Your task to perform on an android device: read, delete, or share a saved page in the chrome app Image 0: 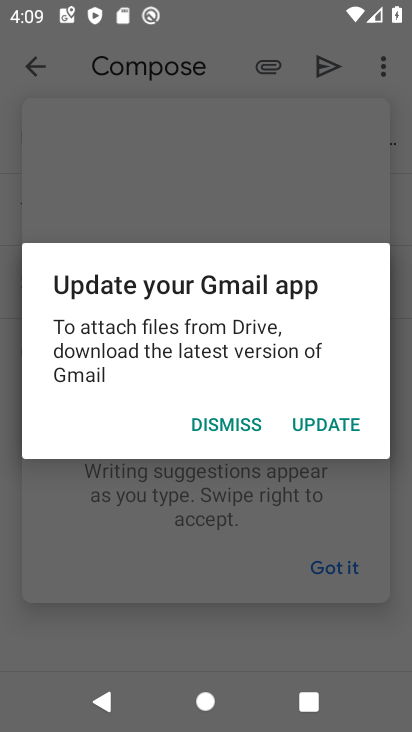
Step 0: press home button
Your task to perform on an android device: read, delete, or share a saved page in the chrome app Image 1: 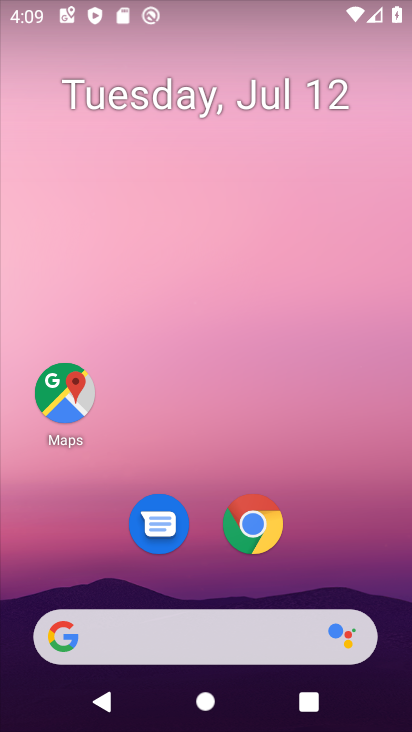
Step 1: drag from (326, 574) to (322, 34)
Your task to perform on an android device: read, delete, or share a saved page in the chrome app Image 2: 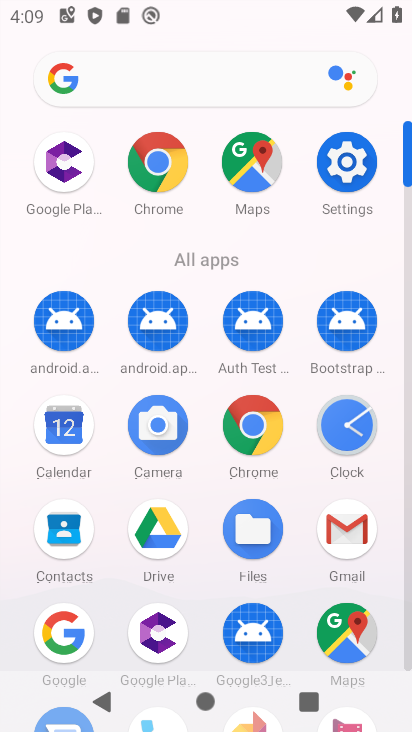
Step 2: click (168, 176)
Your task to perform on an android device: read, delete, or share a saved page in the chrome app Image 3: 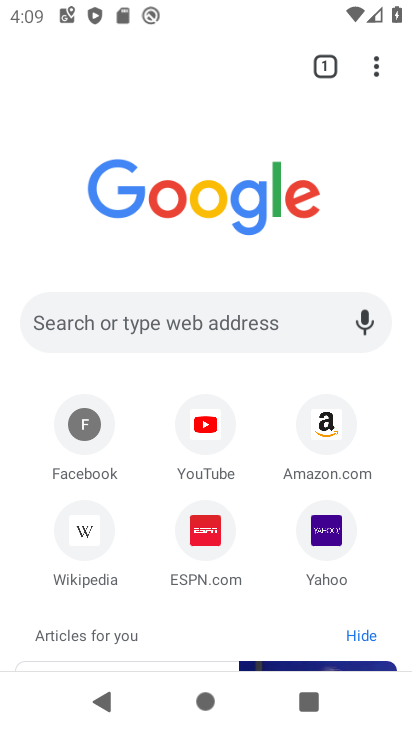
Step 3: click (377, 70)
Your task to perform on an android device: read, delete, or share a saved page in the chrome app Image 4: 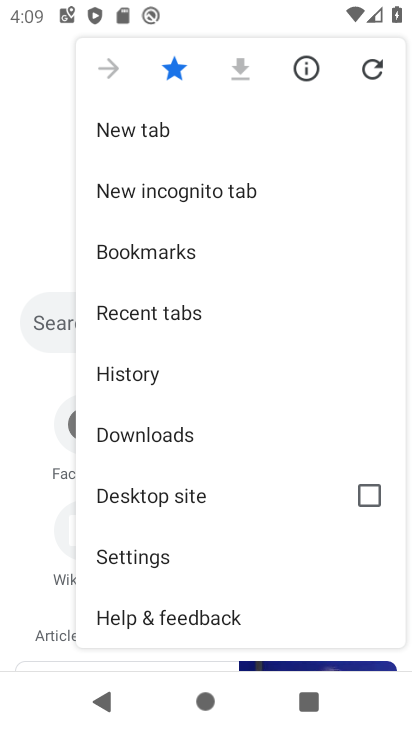
Step 4: click (164, 426)
Your task to perform on an android device: read, delete, or share a saved page in the chrome app Image 5: 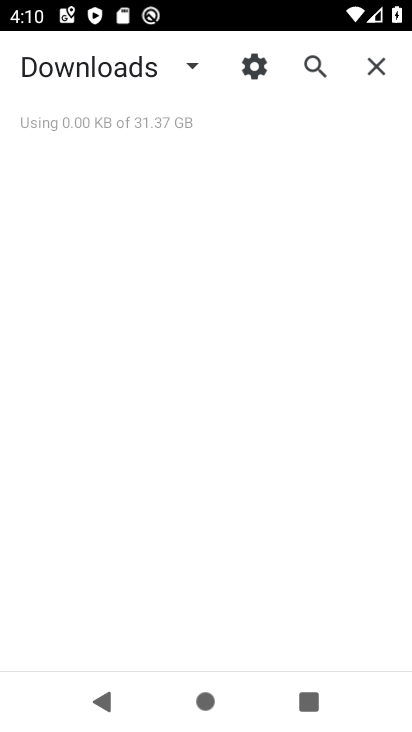
Step 5: task complete